Your task to perform on an android device: turn pop-ups on in chrome Image 0: 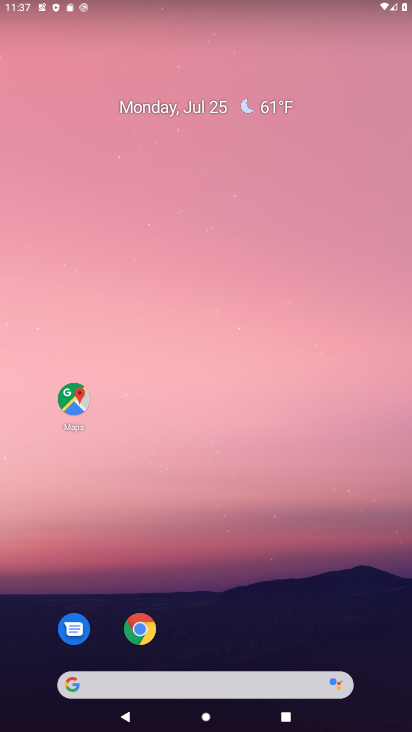
Step 0: click (137, 622)
Your task to perform on an android device: turn pop-ups on in chrome Image 1: 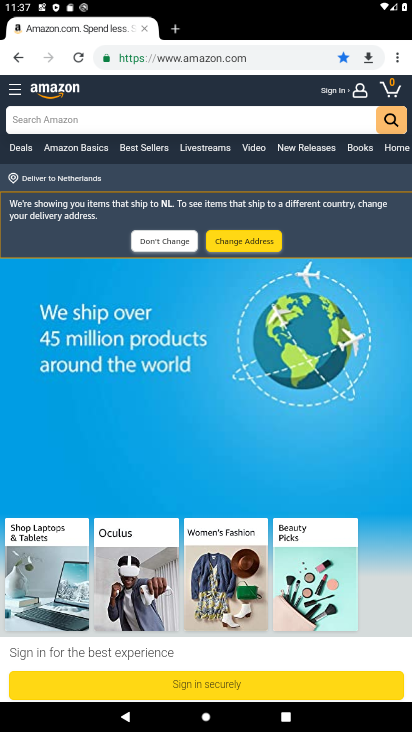
Step 1: click (402, 63)
Your task to perform on an android device: turn pop-ups on in chrome Image 2: 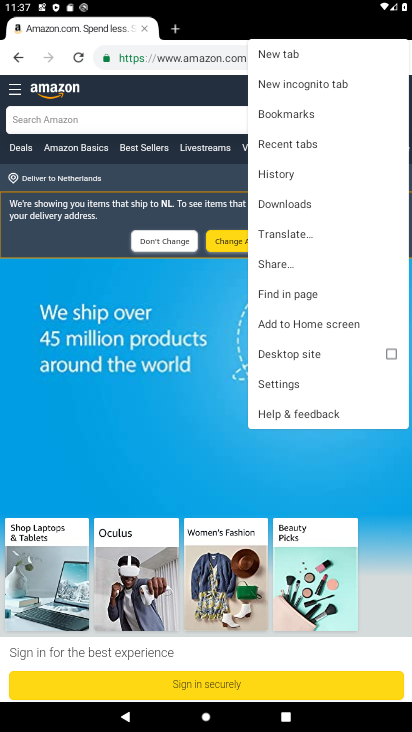
Step 2: click (293, 390)
Your task to perform on an android device: turn pop-ups on in chrome Image 3: 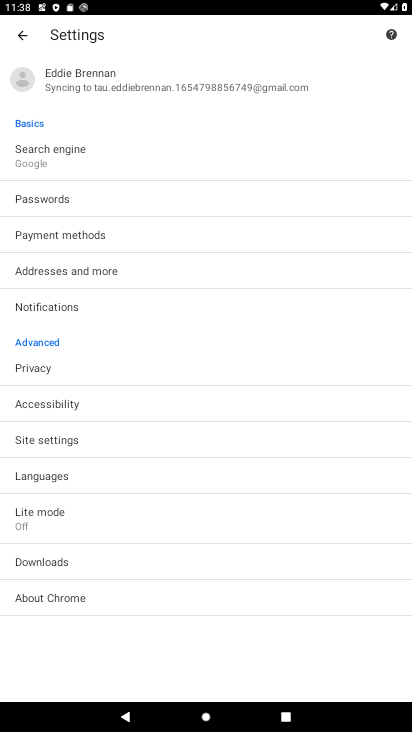
Step 3: click (104, 432)
Your task to perform on an android device: turn pop-ups on in chrome Image 4: 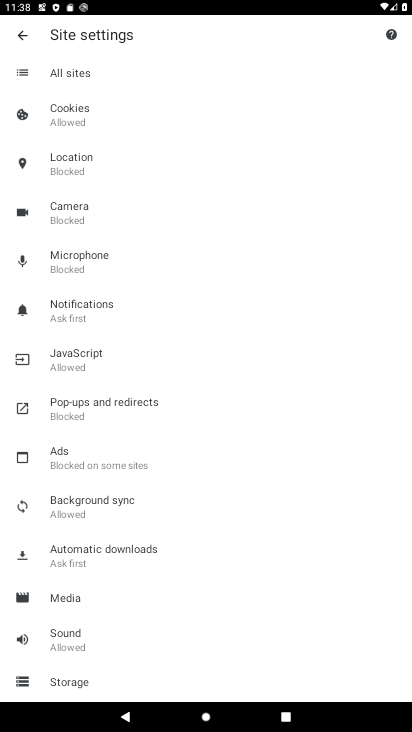
Step 4: click (113, 411)
Your task to perform on an android device: turn pop-ups on in chrome Image 5: 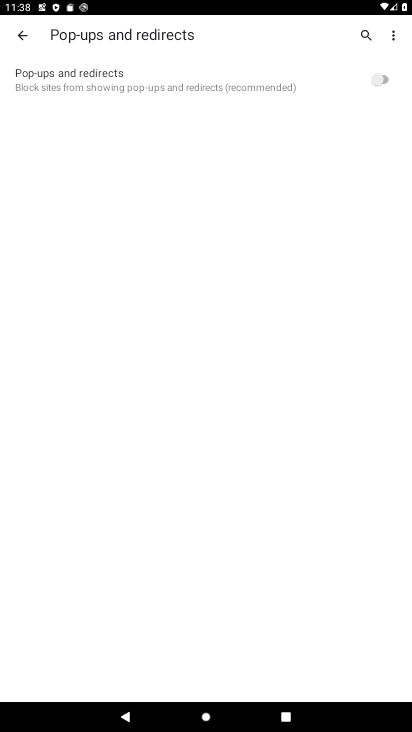
Step 5: click (386, 77)
Your task to perform on an android device: turn pop-ups on in chrome Image 6: 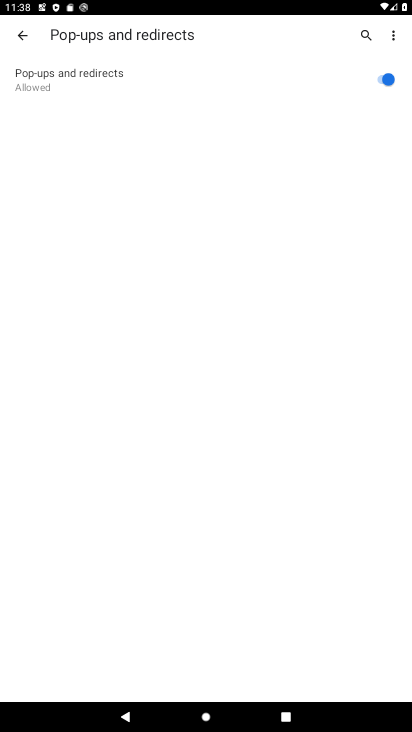
Step 6: task complete